Your task to perform on an android device: Go to ESPN.com Image 0: 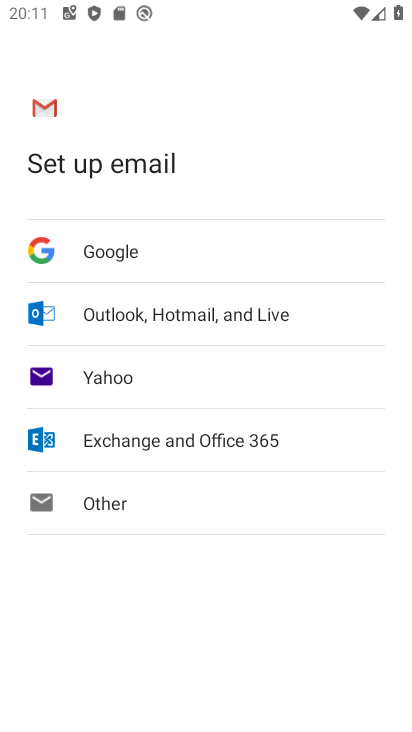
Step 0: press home button
Your task to perform on an android device: Go to ESPN.com Image 1: 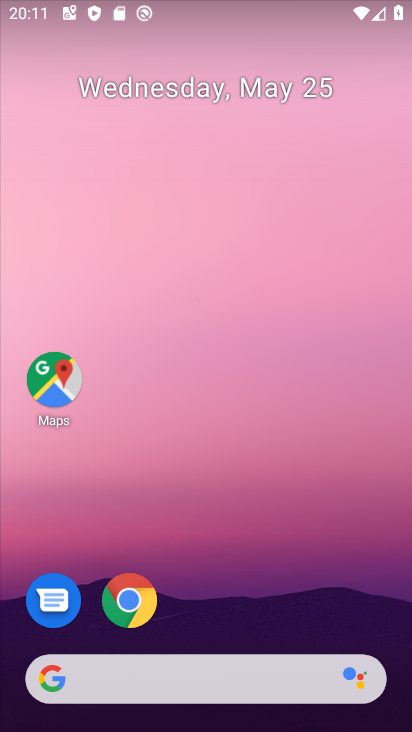
Step 1: drag from (307, 506) to (331, 211)
Your task to perform on an android device: Go to ESPN.com Image 2: 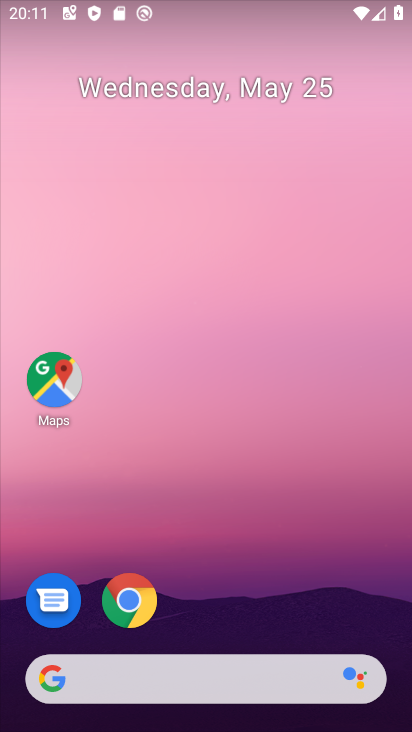
Step 2: drag from (336, 582) to (342, 178)
Your task to perform on an android device: Go to ESPN.com Image 3: 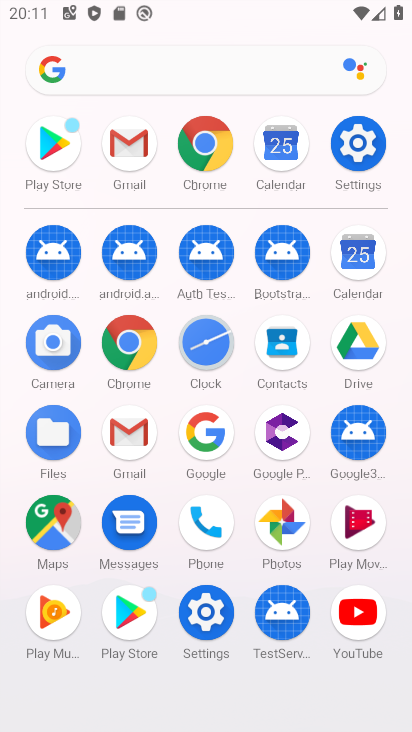
Step 3: click (123, 327)
Your task to perform on an android device: Go to ESPN.com Image 4: 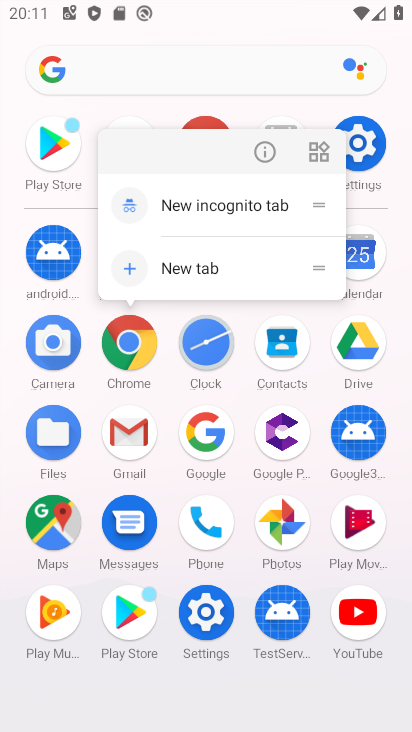
Step 4: click (131, 350)
Your task to perform on an android device: Go to ESPN.com Image 5: 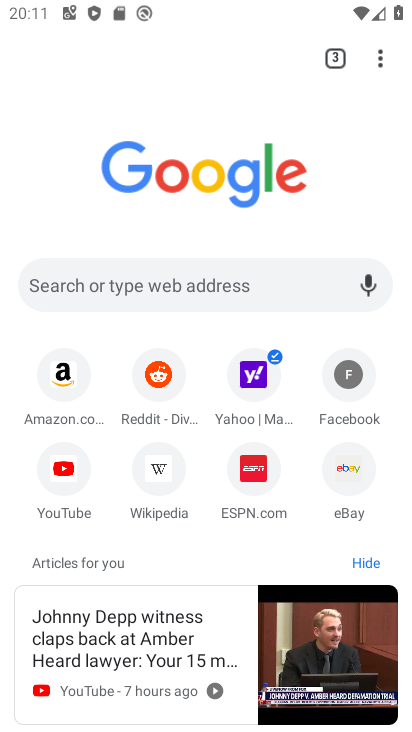
Step 5: click (203, 274)
Your task to perform on an android device: Go to ESPN.com Image 6: 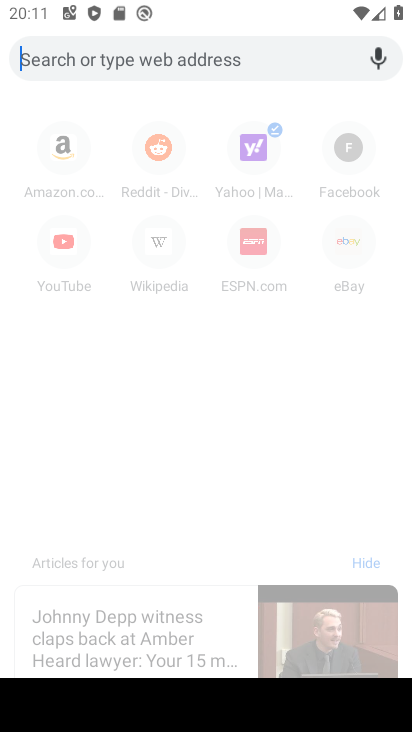
Step 6: type "espn.com"
Your task to perform on an android device: Go to ESPN.com Image 7: 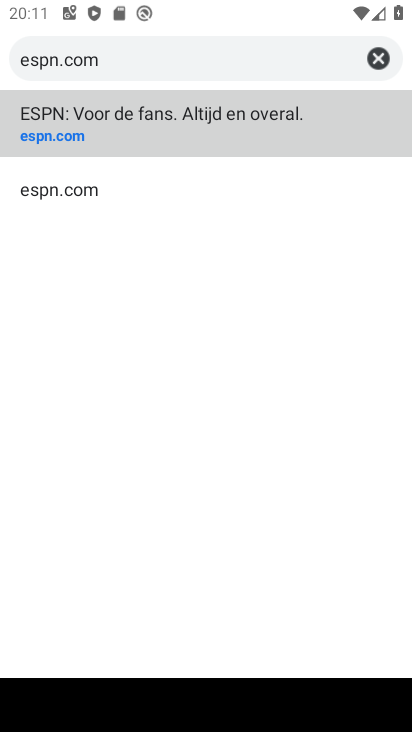
Step 7: click (245, 120)
Your task to perform on an android device: Go to ESPN.com Image 8: 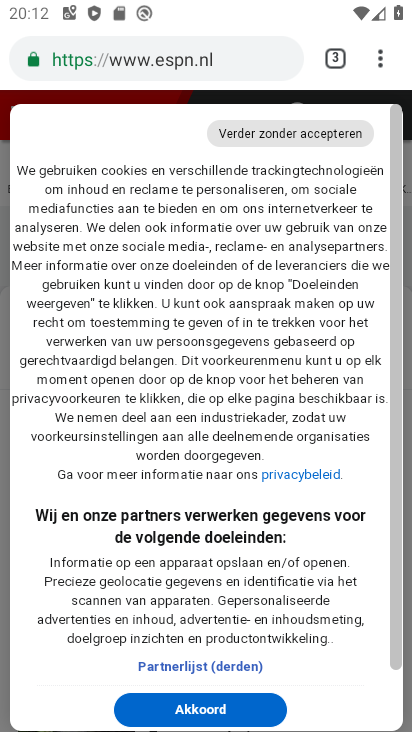
Step 8: click (179, 713)
Your task to perform on an android device: Go to ESPN.com Image 9: 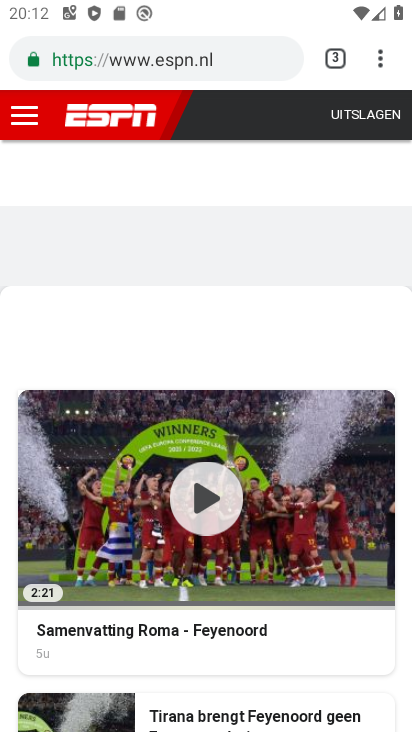
Step 9: task complete